Your task to perform on an android device: check out phone information Image 0: 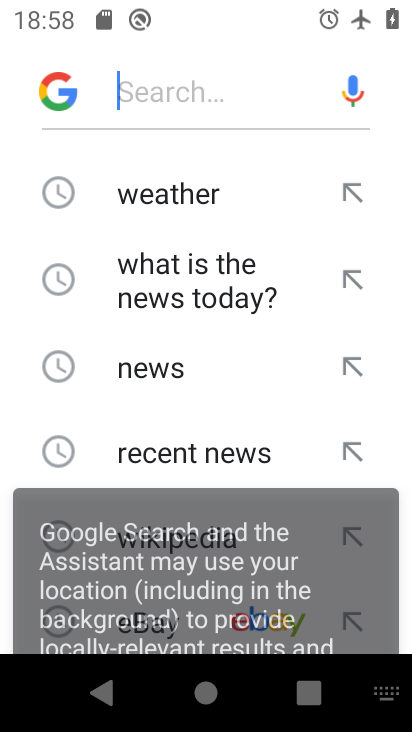
Step 0: press home button
Your task to perform on an android device: check out phone information Image 1: 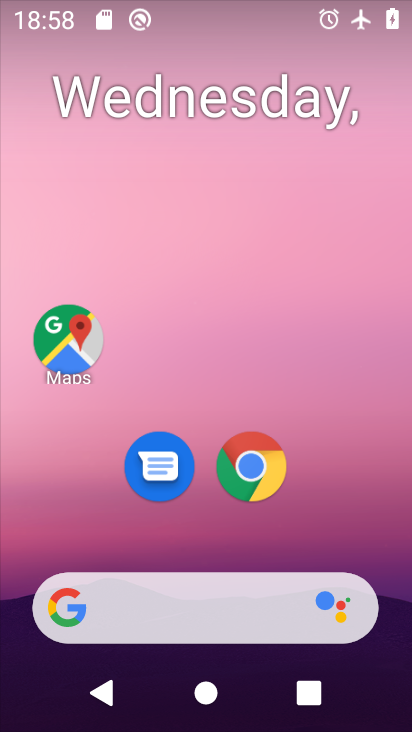
Step 1: drag from (337, 505) to (253, 144)
Your task to perform on an android device: check out phone information Image 2: 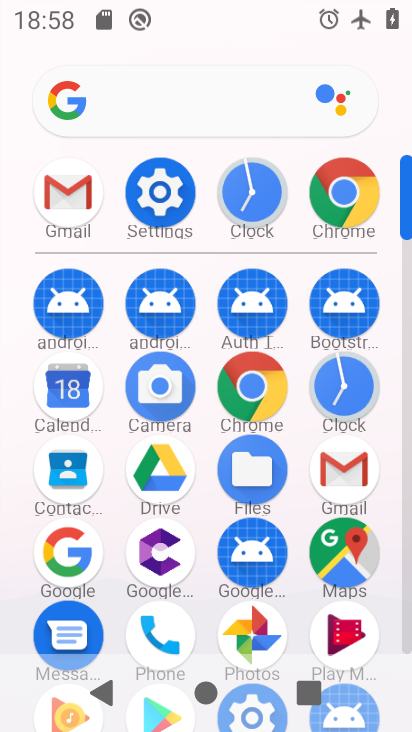
Step 2: click (154, 191)
Your task to perform on an android device: check out phone information Image 3: 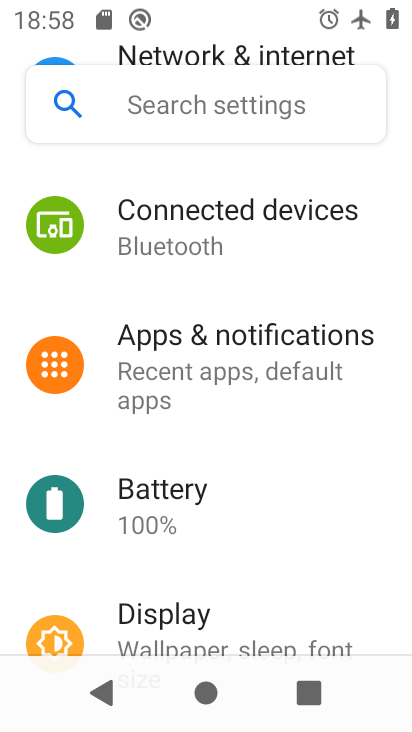
Step 3: drag from (292, 550) to (257, 304)
Your task to perform on an android device: check out phone information Image 4: 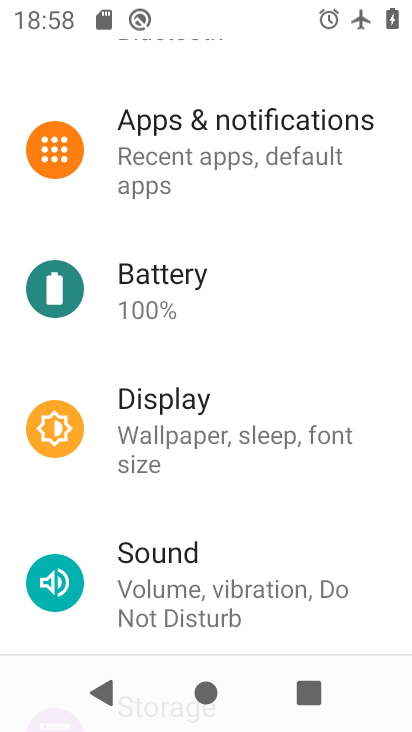
Step 4: drag from (254, 521) to (230, 233)
Your task to perform on an android device: check out phone information Image 5: 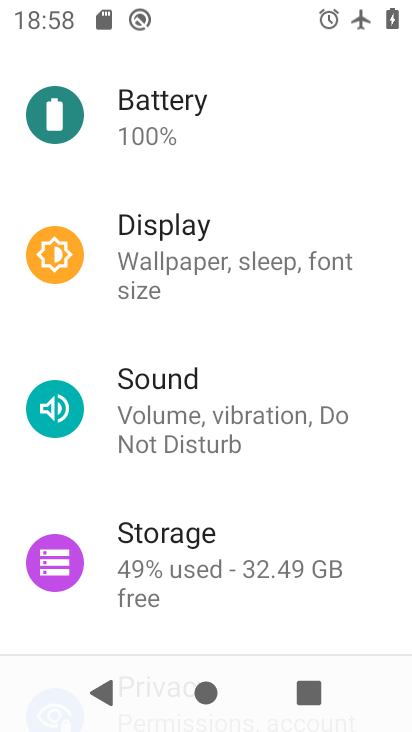
Step 5: drag from (251, 557) to (194, 310)
Your task to perform on an android device: check out phone information Image 6: 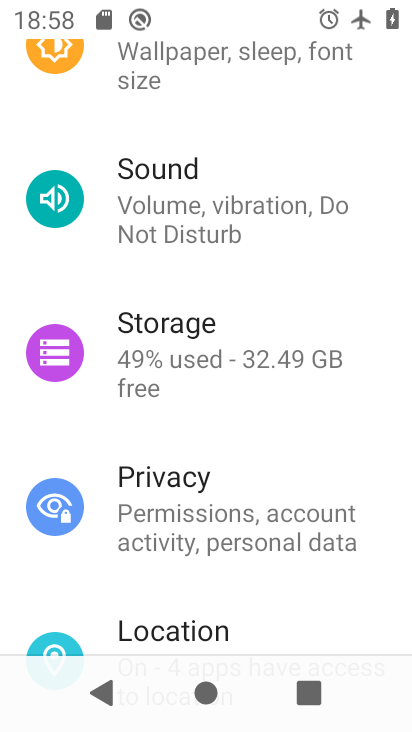
Step 6: drag from (243, 576) to (179, 295)
Your task to perform on an android device: check out phone information Image 7: 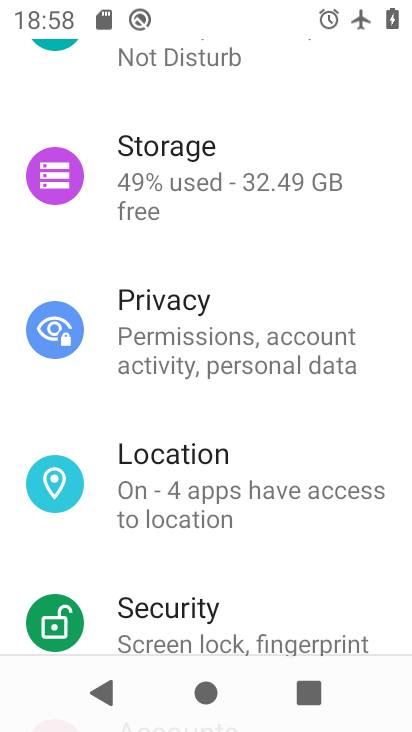
Step 7: drag from (251, 547) to (212, 303)
Your task to perform on an android device: check out phone information Image 8: 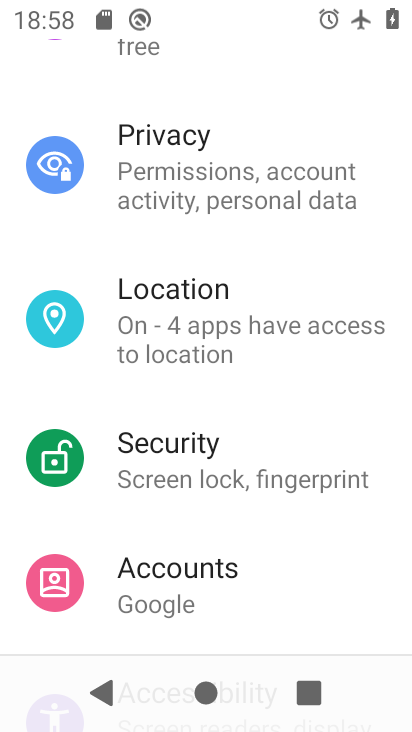
Step 8: drag from (240, 535) to (210, 271)
Your task to perform on an android device: check out phone information Image 9: 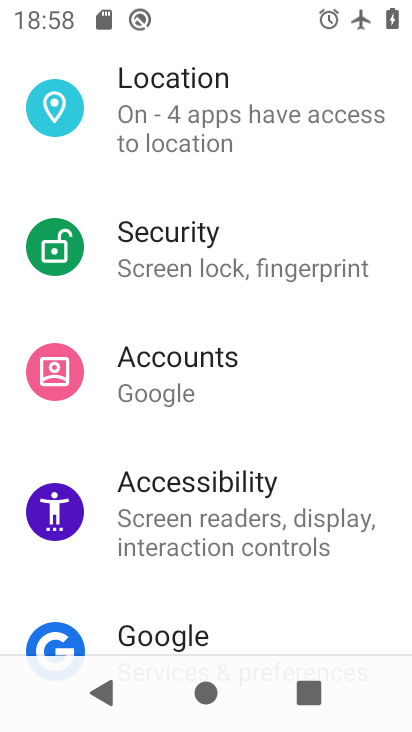
Step 9: drag from (282, 598) to (236, 334)
Your task to perform on an android device: check out phone information Image 10: 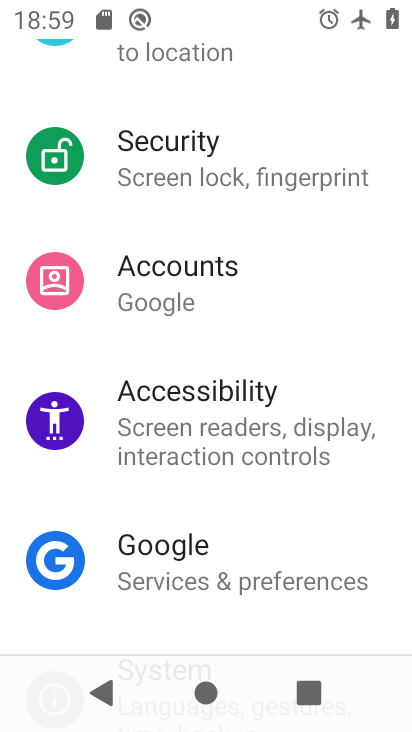
Step 10: drag from (268, 494) to (218, 243)
Your task to perform on an android device: check out phone information Image 11: 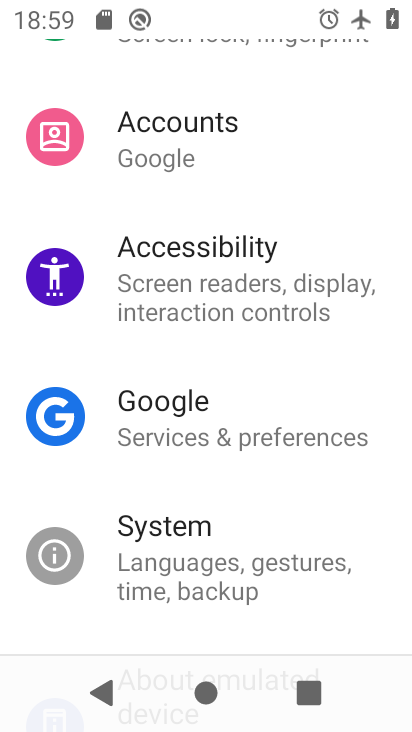
Step 11: drag from (247, 473) to (194, 167)
Your task to perform on an android device: check out phone information Image 12: 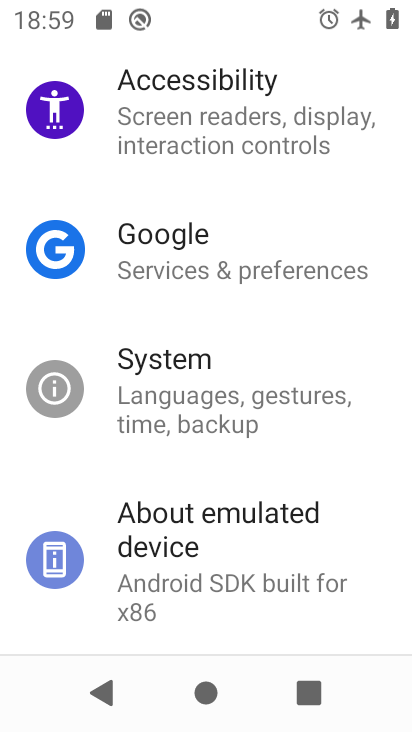
Step 12: click (169, 511)
Your task to perform on an android device: check out phone information Image 13: 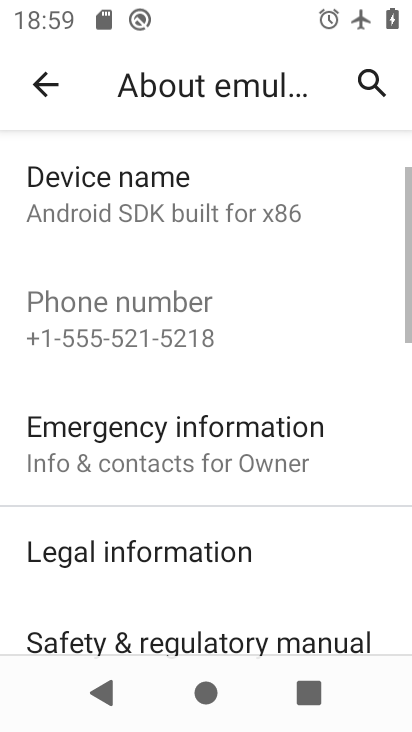
Step 13: task complete